Your task to perform on an android device: Play the last video I watched on Youtube Image 0: 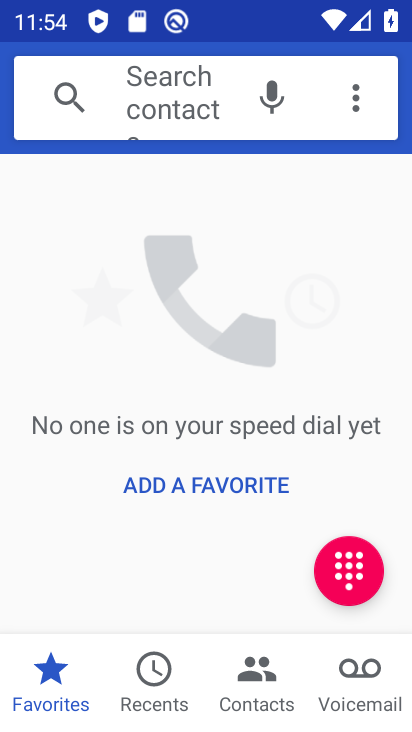
Step 0: press home button
Your task to perform on an android device: Play the last video I watched on Youtube Image 1: 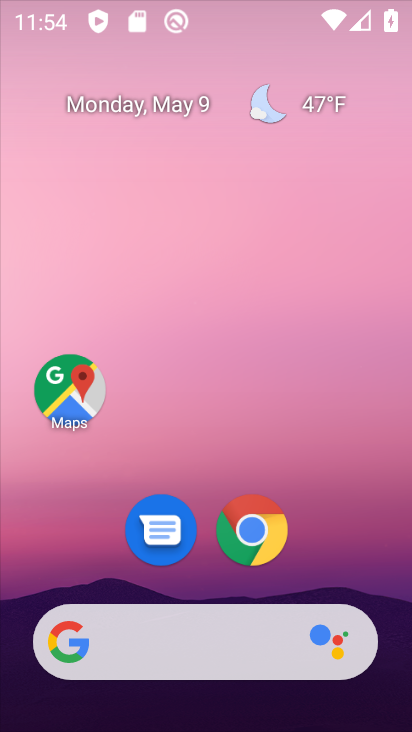
Step 1: drag from (364, 567) to (385, 229)
Your task to perform on an android device: Play the last video I watched on Youtube Image 2: 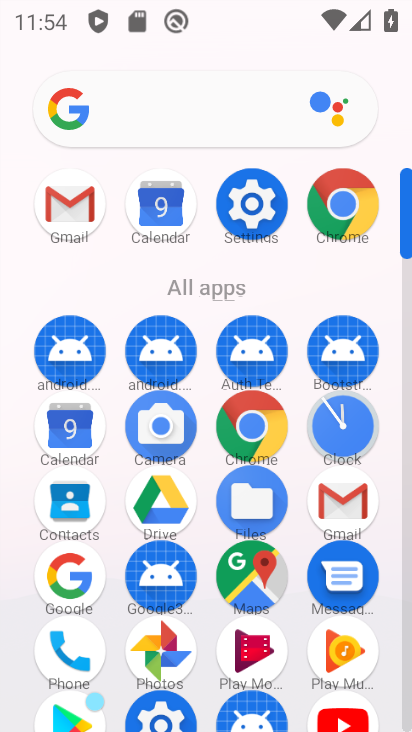
Step 2: click (257, 647)
Your task to perform on an android device: Play the last video I watched on Youtube Image 3: 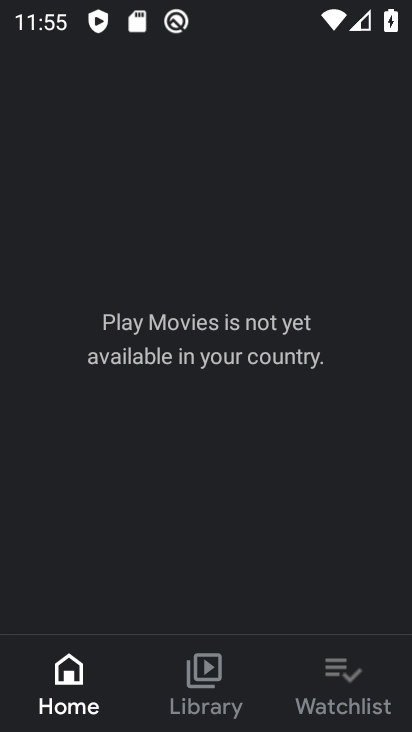
Step 3: click (354, 667)
Your task to perform on an android device: Play the last video I watched on Youtube Image 4: 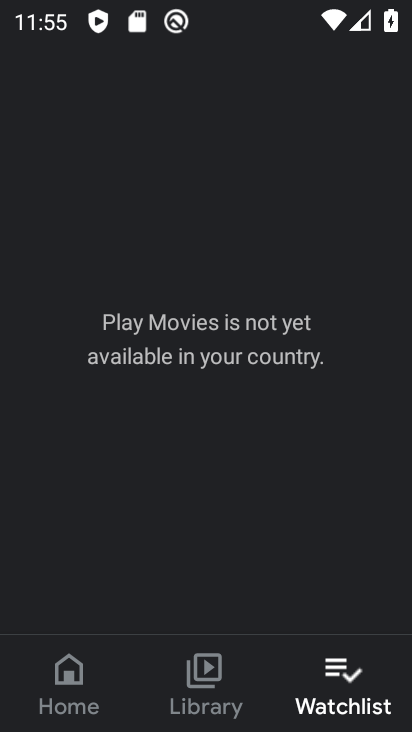
Step 4: task complete